Your task to perform on an android device: toggle improve location accuracy Image 0: 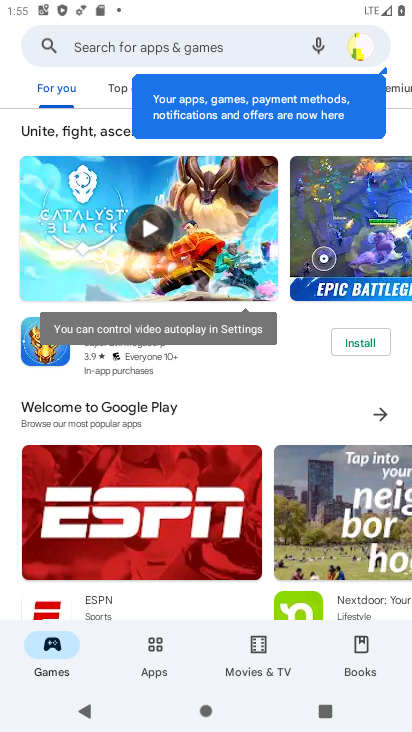
Step 0: press home button
Your task to perform on an android device: toggle improve location accuracy Image 1: 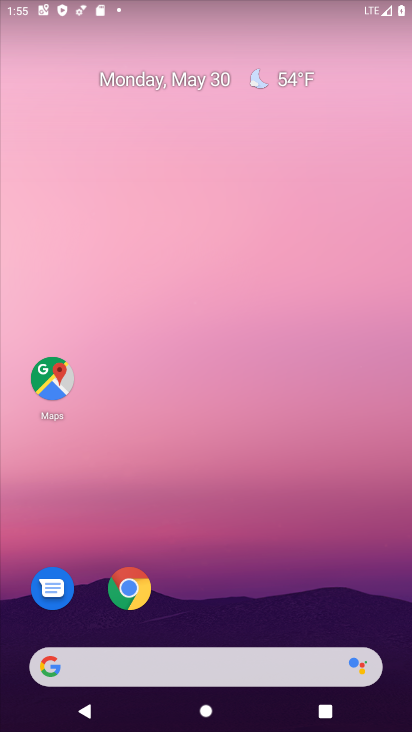
Step 1: drag from (247, 587) to (265, 64)
Your task to perform on an android device: toggle improve location accuracy Image 2: 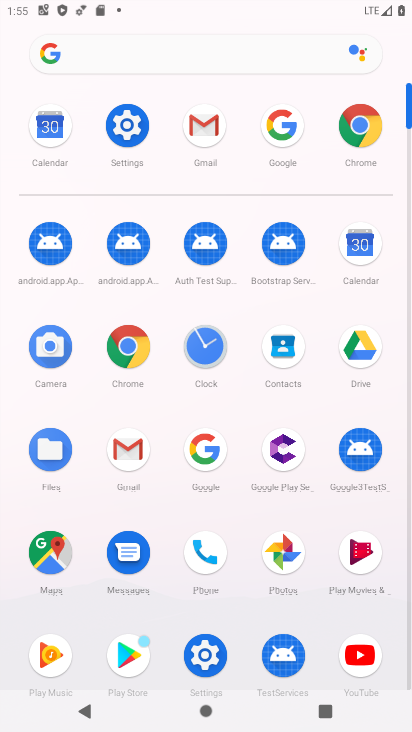
Step 2: click (207, 648)
Your task to perform on an android device: toggle improve location accuracy Image 3: 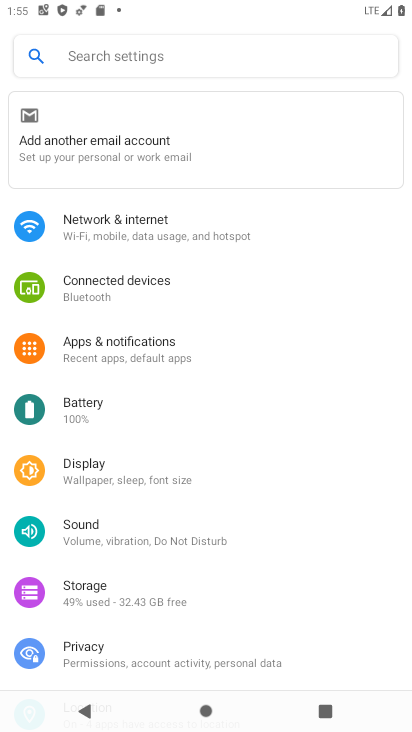
Step 3: drag from (145, 607) to (136, 320)
Your task to perform on an android device: toggle improve location accuracy Image 4: 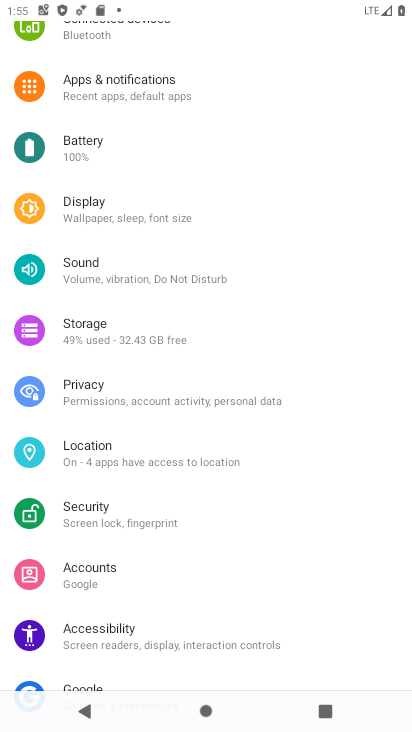
Step 4: click (121, 459)
Your task to perform on an android device: toggle improve location accuracy Image 5: 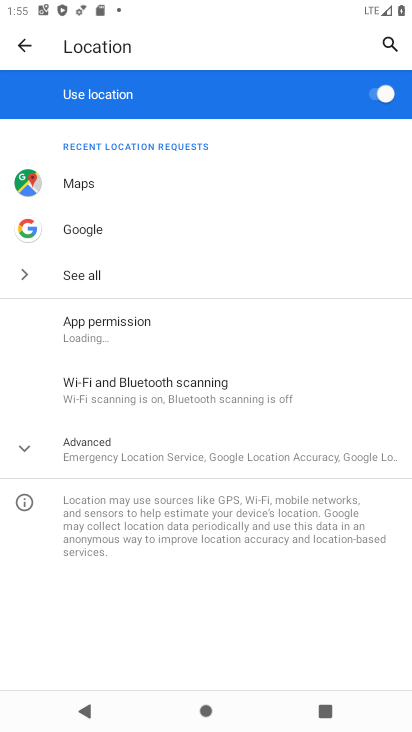
Step 5: click (130, 327)
Your task to perform on an android device: toggle improve location accuracy Image 6: 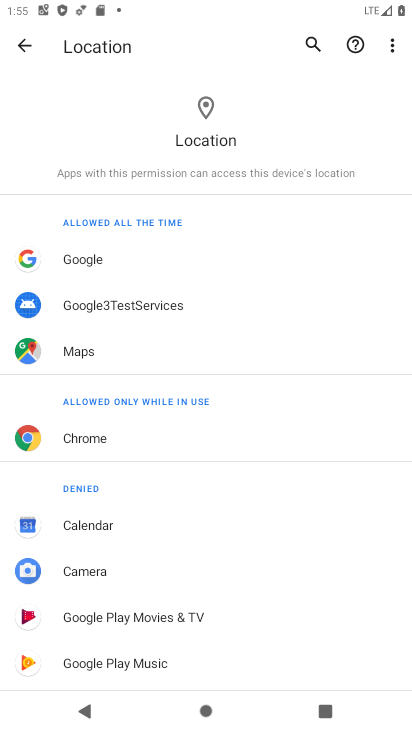
Step 6: drag from (267, 558) to (284, 92)
Your task to perform on an android device: toggle improve location accuracy Image 7: 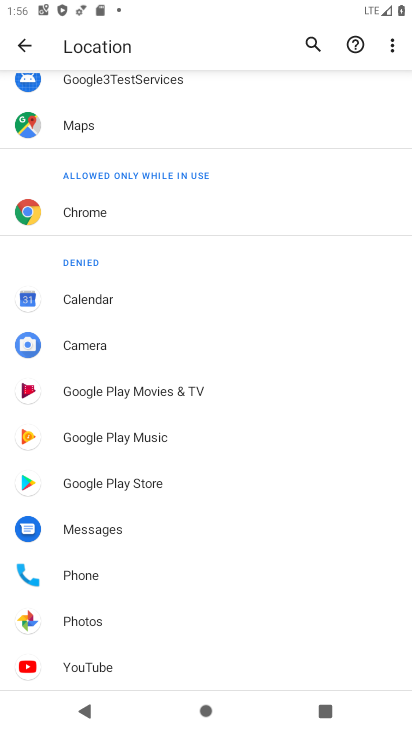
Step 7: drag from (210, 634) to (220, 323)
Your task to perform on an android device: toggle improve location accuracy Image 8: 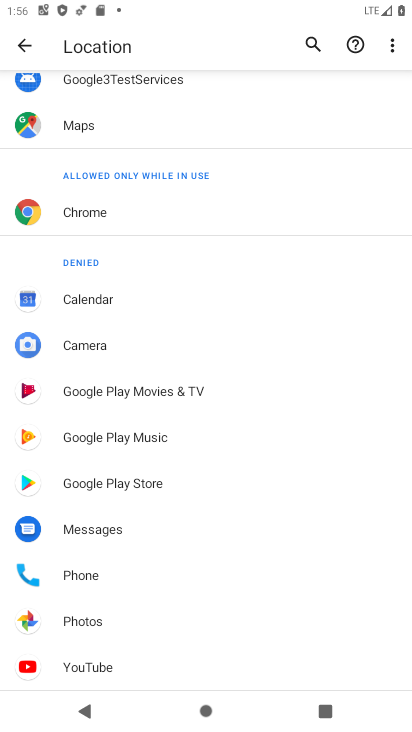
Step 8: drag from (122, 209) to (205, 534)
Your task to perform on an android device: toggle improve location accuracy Image 9: 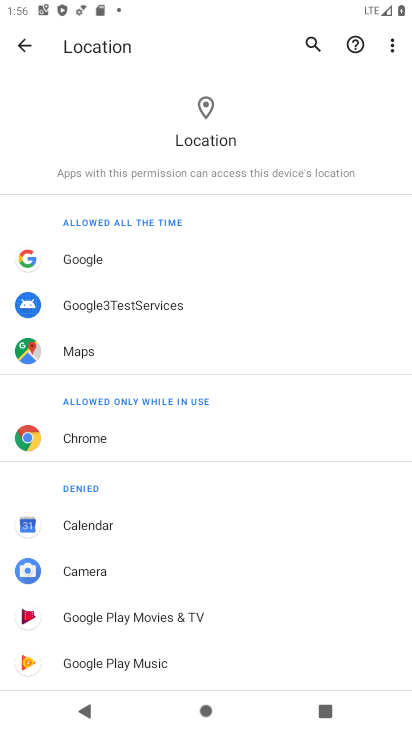
Step 9: drag from (234, 546) to (244, 426)
Your task to perform on an android device: toggle improve location accuracy Image 10: 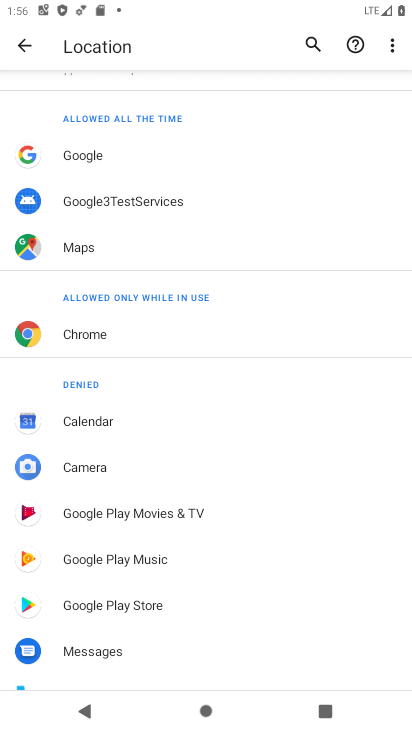
Step 10: drag from (251, 226) to (241, 603)
Your task to perform on an android device: toggle improve location accuracy Image 11: 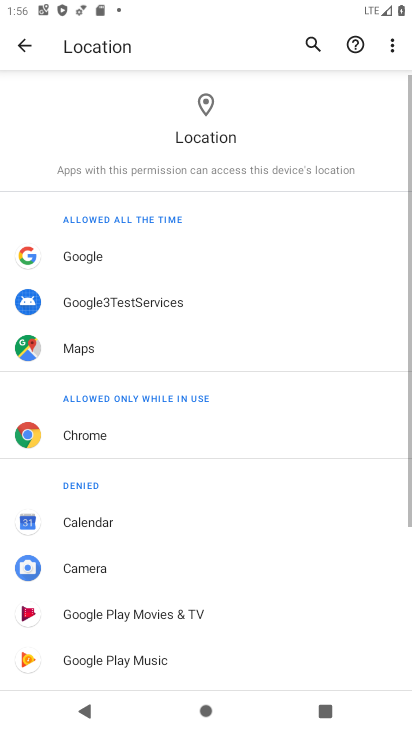
Step 11: press back button
Your task to perform on an android device: toggle improve location accuracy Image 12: 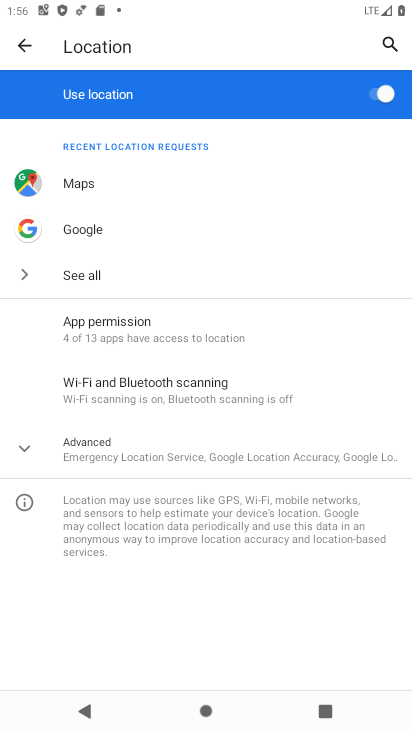
Step 12: click (77, 323)
Your task to perform on an android device: toggle improve location accuracy Image 13: 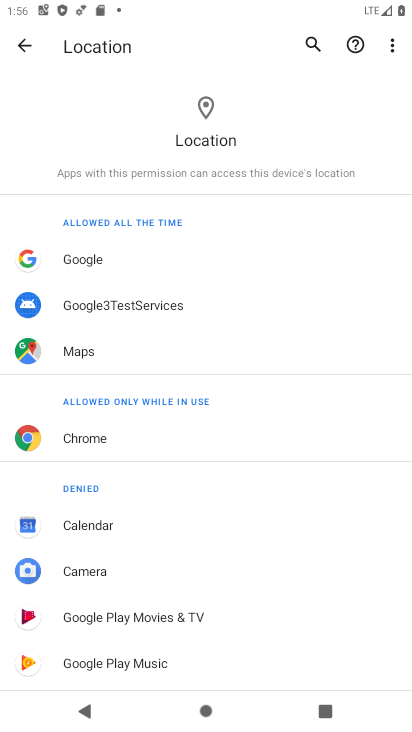
Step 13: task complete